Your task to perform on an android device: check storage Image 0: 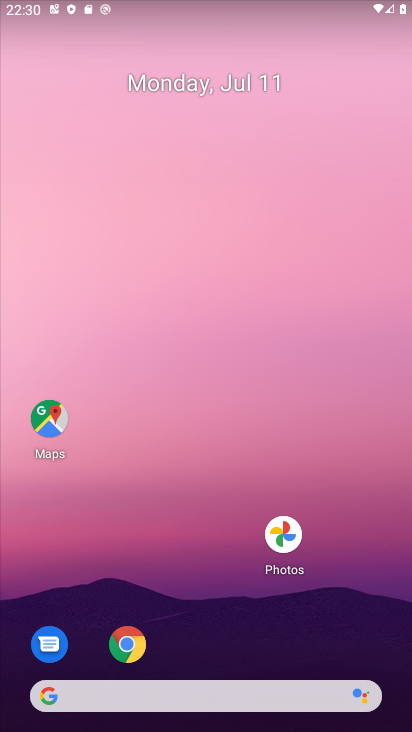
Step 0: drag from (272, 586) to (254, 266)
Your task to perform on an android device: check storage Image 1: 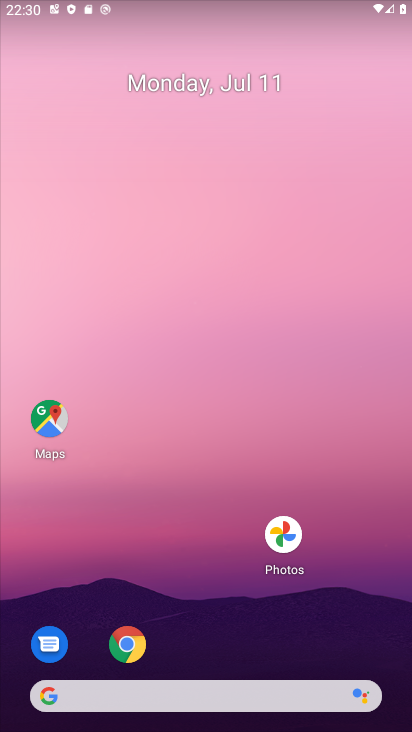
Step 1: drag from (316, 722) to (256, 291)
Your task to perform on an android device: check storage Image 2: 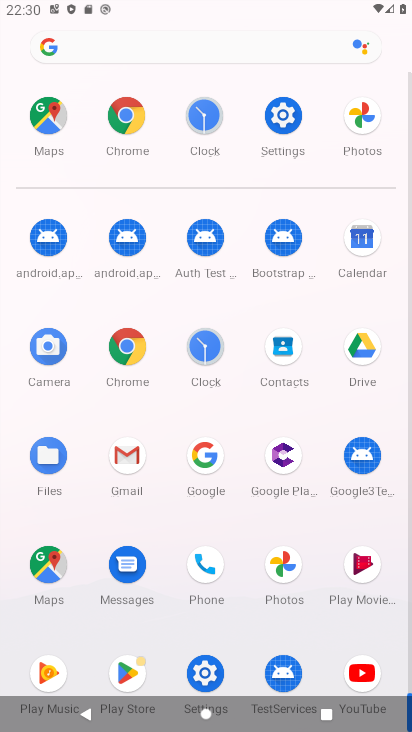
Step 2: drag from (257, 670) to (214, 251)
Your task to perform on an android device: check storage Image 3: 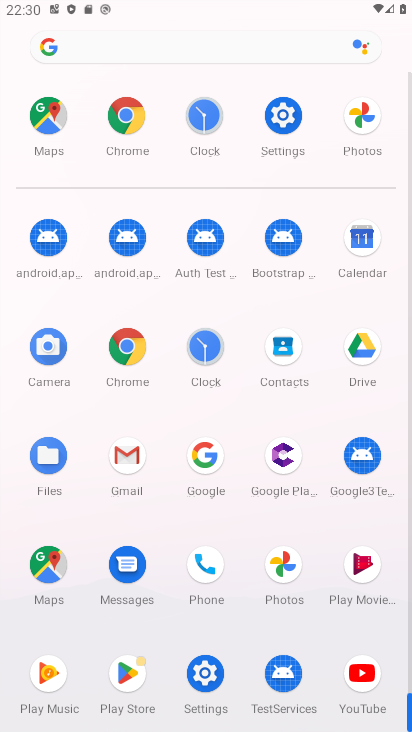
Step 3: click (123, 114)
Your task to perform on an android device: check storage Image 4: 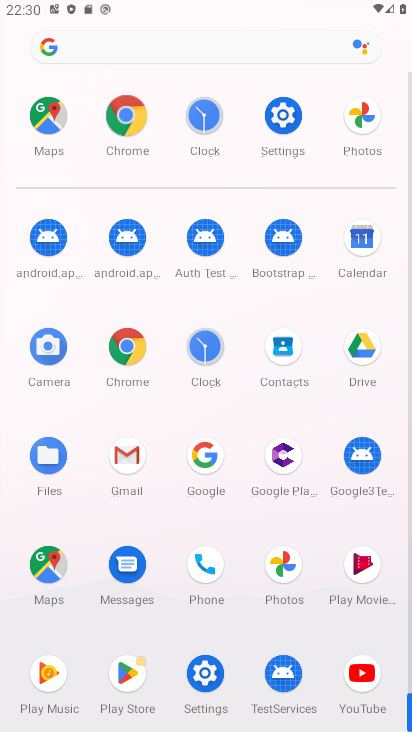
Step 4: click (124, 114)
Your task to perform on an android device: check storage Image 5: 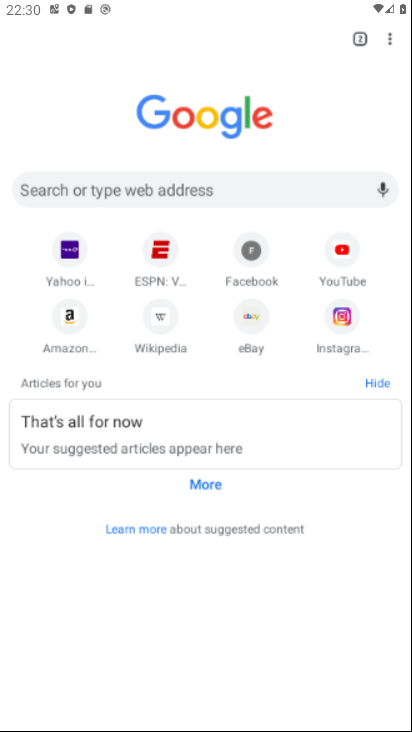
Step 5: click (125, 114)
Your task to perform on an android device: check storage Image 6: 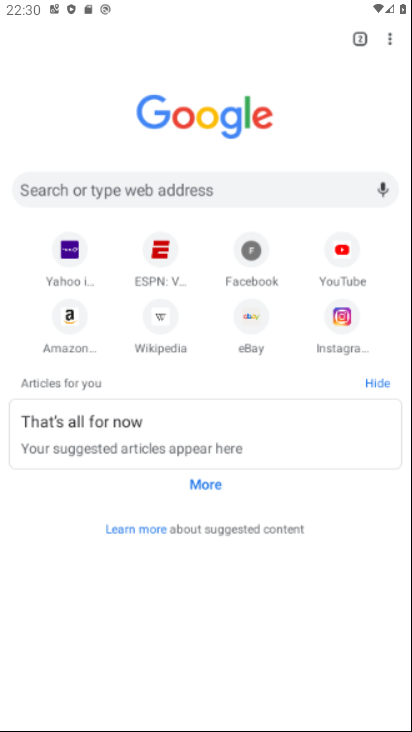
Step 6: click (126, 114)
Your task to perform on an android device: check storage Image 7: 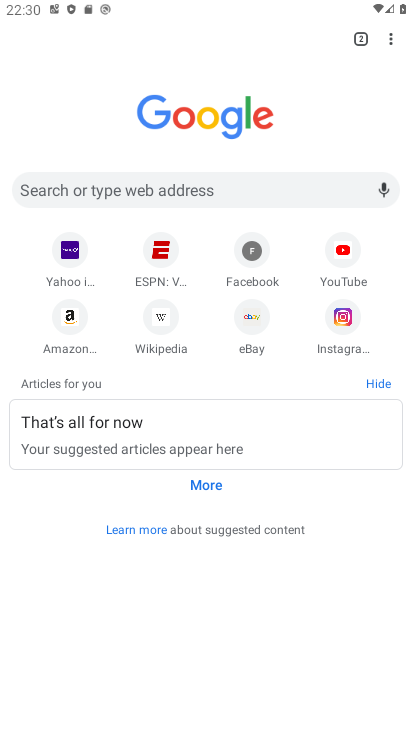
Step 7: press back button
Your task to perform on an android device: check storage Image 8: 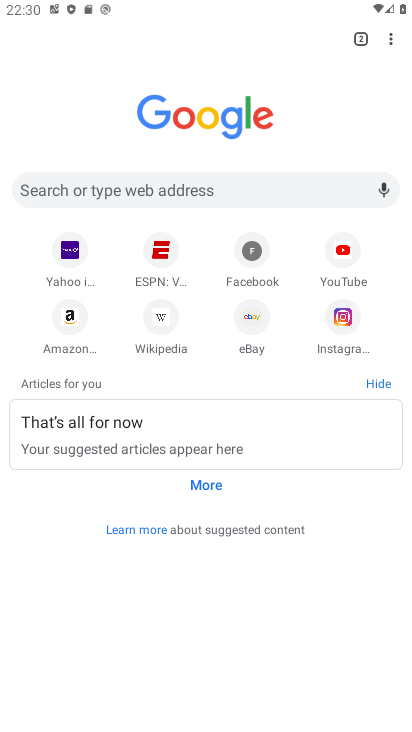
Step 8: press back button
Your task to perform on an android device: check storage Image 9: 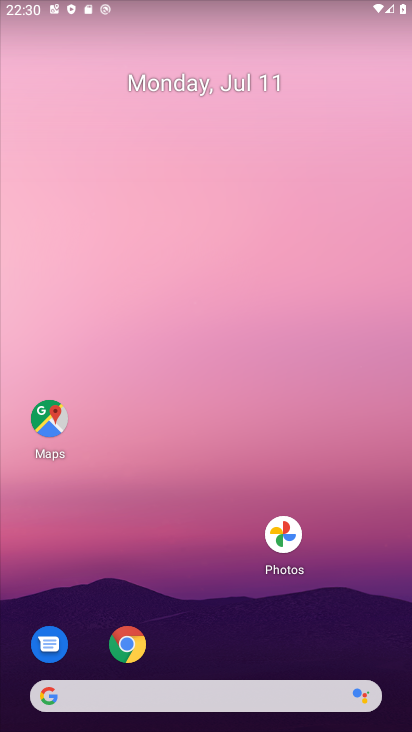
Step 9: drag from (144, 709) to (125, 113)
Your task to perform on an android device: check storage Image 10: 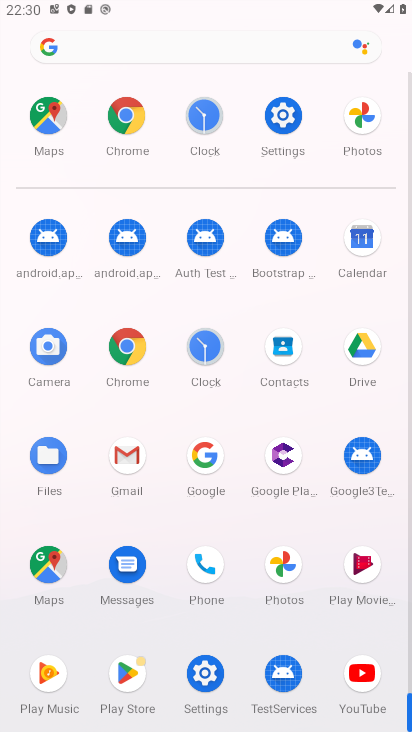
Step 10: click (292, 108)
Your task to perform on an android device: check storage Image 11: 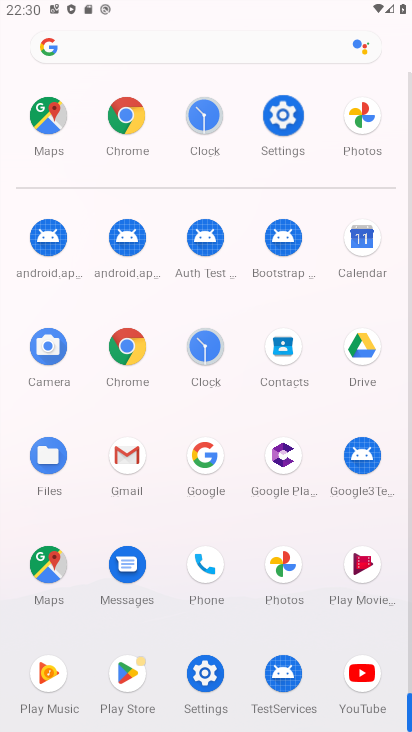
Step 11: click (292, 108)
Your task to perform on an android device: check storage Image 12: 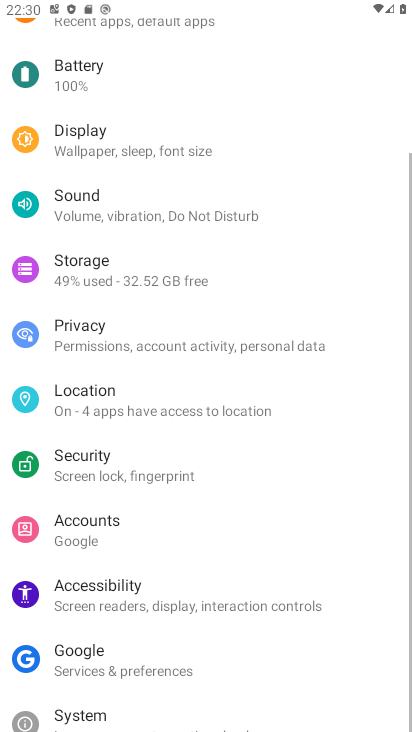
Step 12: click (290, 110)
Your task to perform on an android device: check storage Image 13: 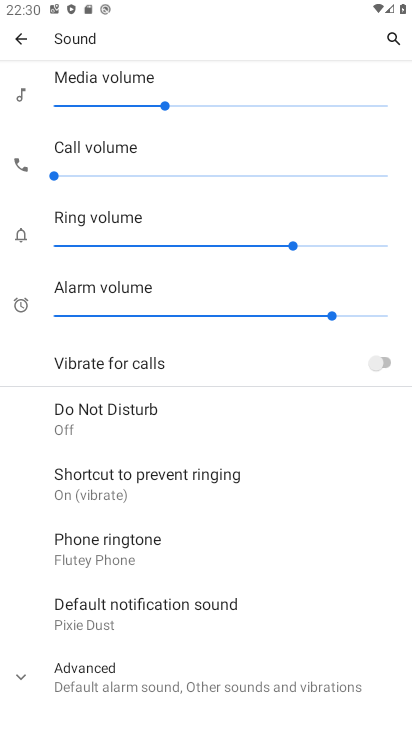
Step 13: click (32, 49)
Your task to perform on an android device: check storage Image 14: 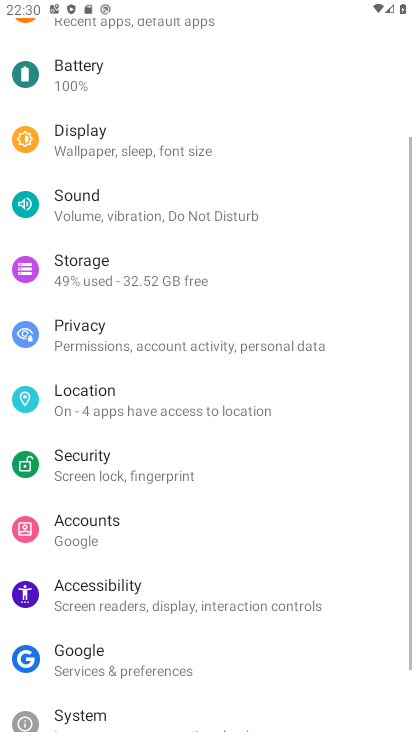
Step 14: click (95, 194)
Your task to perform on an android device: check storage Image 15: 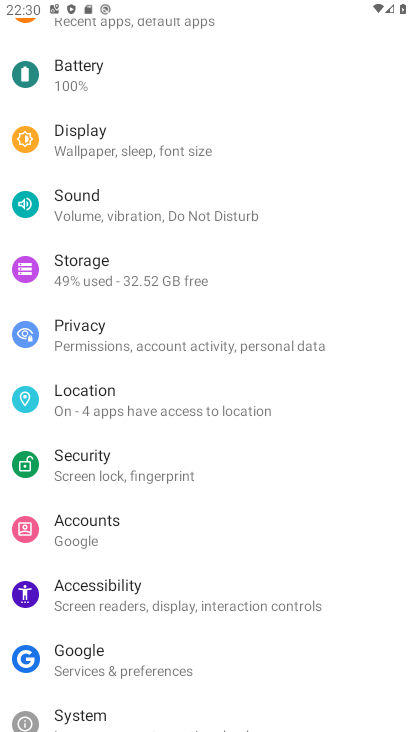
Step 15: click (84, 260)
Your task to perform on an android device: check storage Image 16: 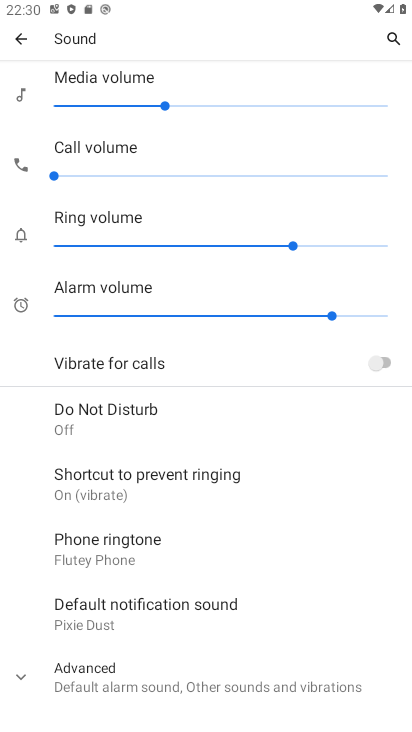
Step 16: click (35, 29)
Your task to perform on an android device: check storage Image 17: 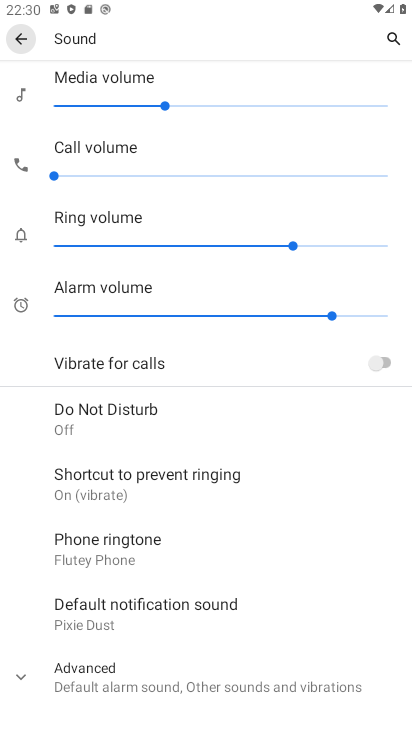
Step 17: click (27, 31)
Your task to perform on an android device: check storage Image 18: 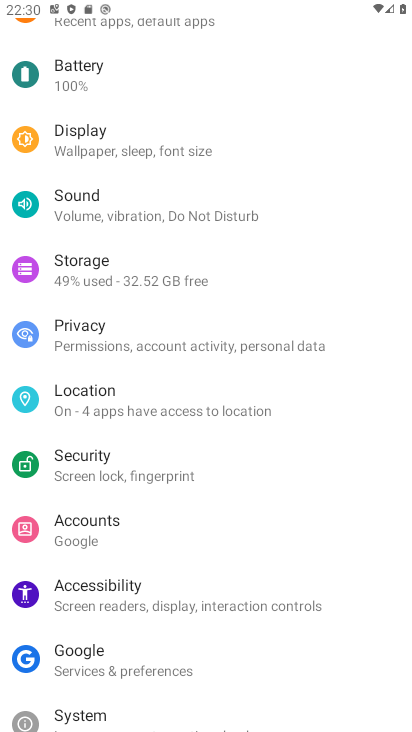
Step 18: click (89, 270)
Your task to perform on an android device: check storage Image 19: 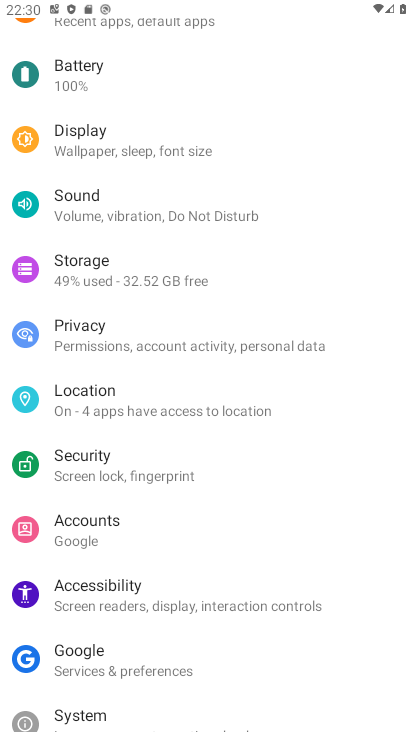
Step 19: click (88, 269)
Your task to perform on an android device: check storage Image 20: 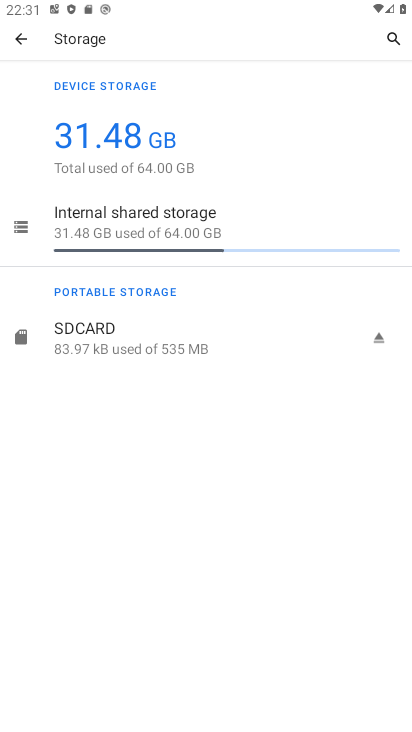
Step 20: click (100, 278)
Your task to perform on an android device: check storage Image 21: 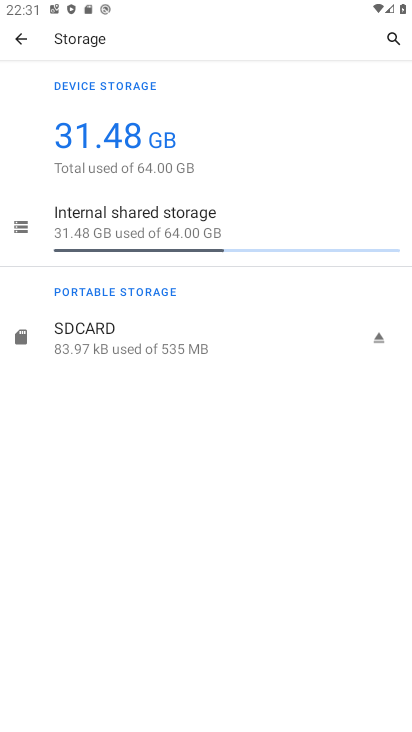
Step 21: click (90, 265)
Your task to perform on an android device: check storage Image 22: 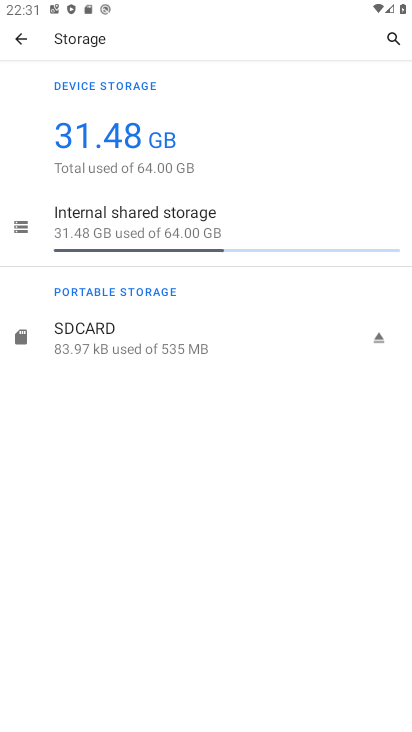
Step 22: task complete